Your task to perform on an android device: move an email to a new category in the gmail app Image 0: 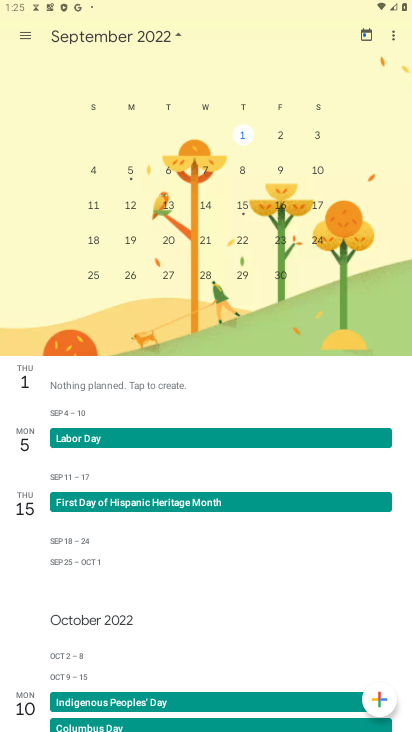
Step 0: press home button
Your task to perform on an android device: move an email to a new category in the gmail app Image 1: 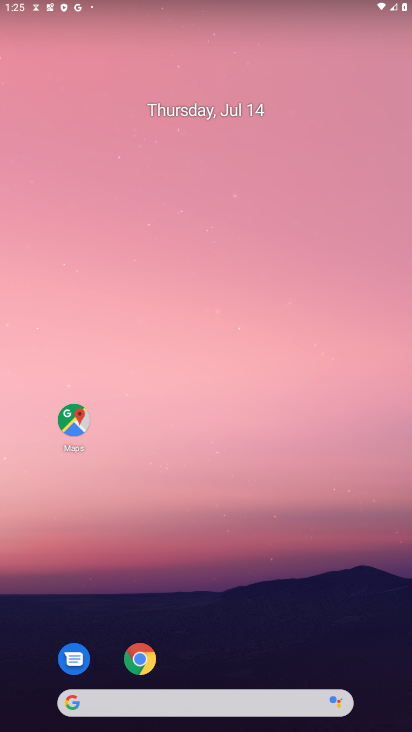
Step 1: drag from (166, 289) to (215, 156)
Your task to perform on an android device: move an email to a new category in the gmail app Image 2: 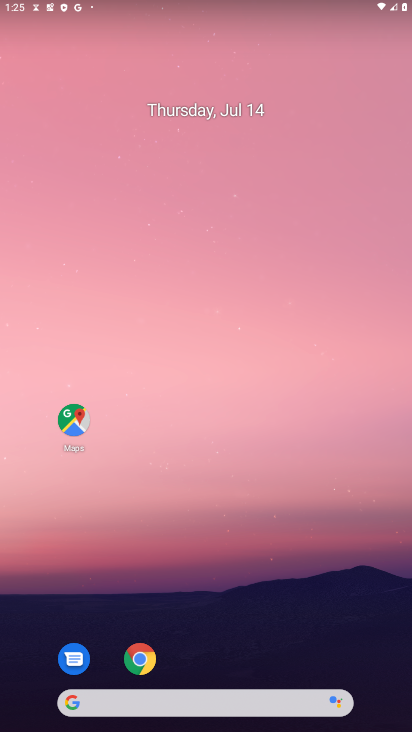
Step 2: drag from (27, 694) to (263, 111)
Your task to perform on an android device: move an email to a new category in the gmail app Image 3: 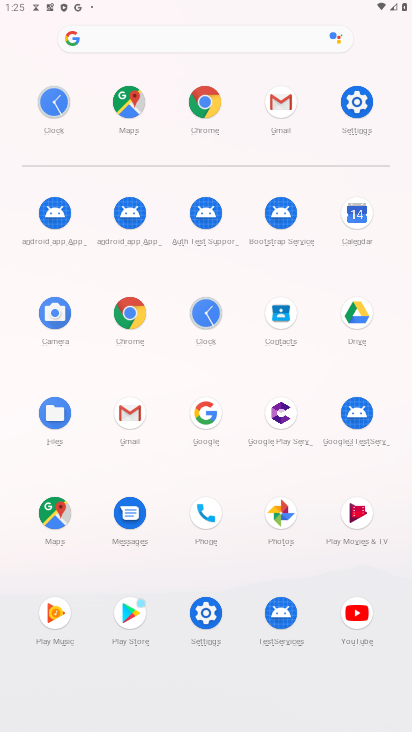
Step 3: click (126, 415)
Your task to perform on an android device: move an email to a new category in the gmail app Image 4: 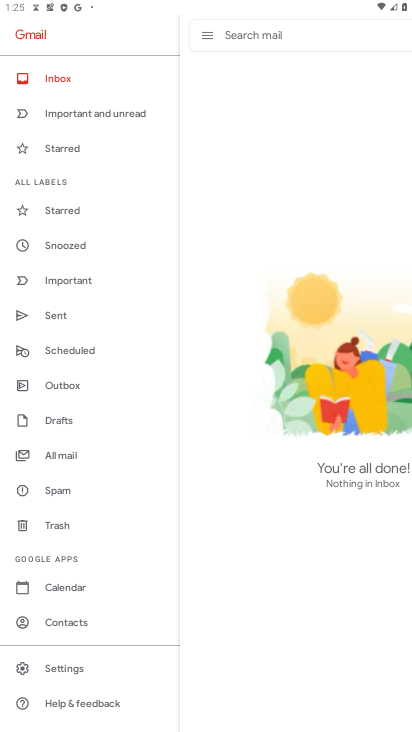
Step 4: click (77, 66)
Your task to perform on an android device: move an email to a new category in the gmail app Image 5: 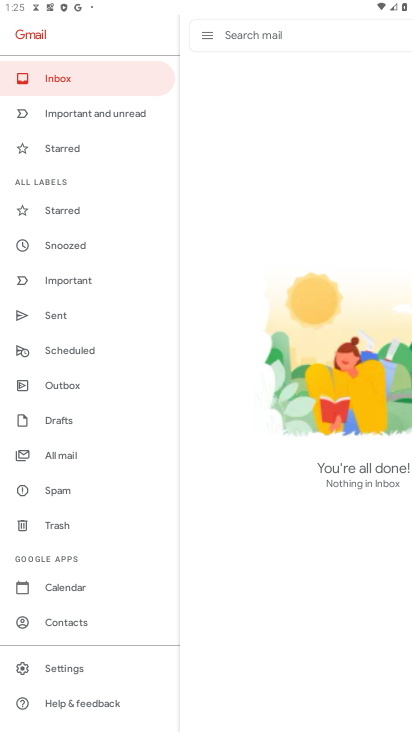
Step 5: task complete